Your task to perform on an android device: Go to Google Image 0: 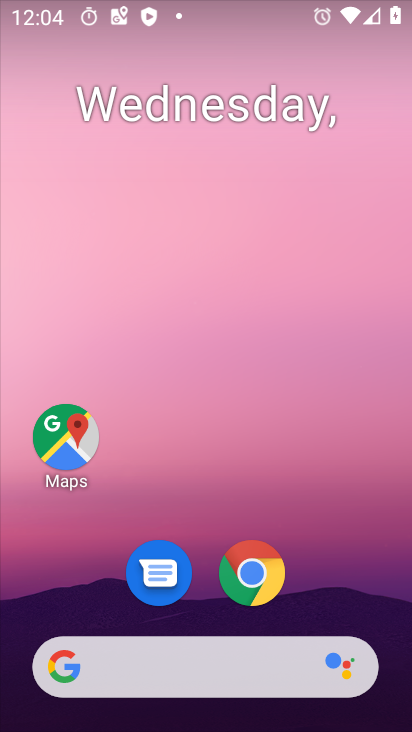
Step 0: drag from (257, 637) to (269, 287)
Your task to perform on an android device: Go to Google Image 1: 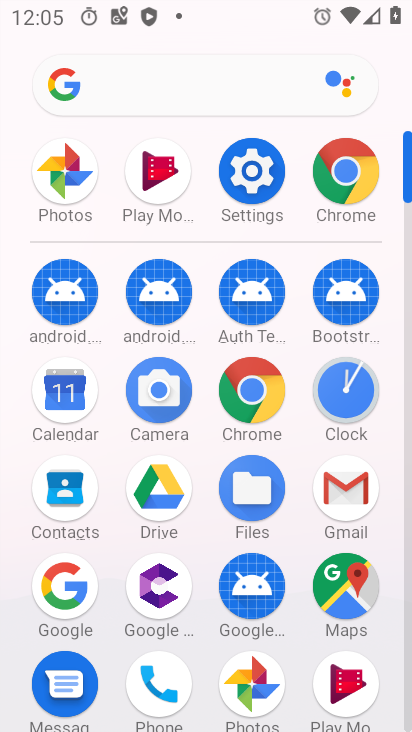
Step 1: click (118, 90)
Your task to perform on an android device: Go to Google Image 2: 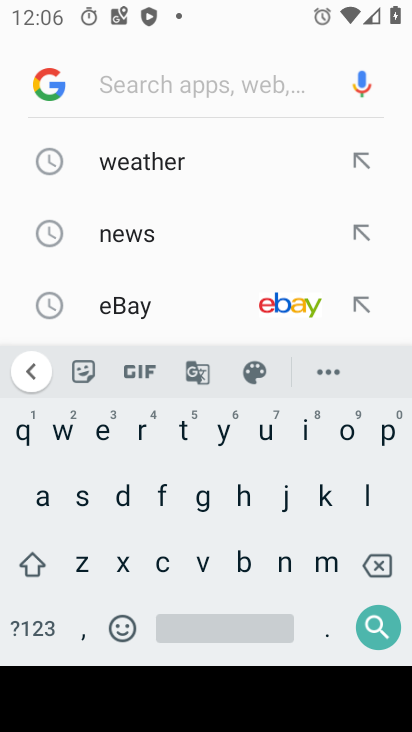
Step 2: click (58, 89)
Your task to perform on an android device: Go to Google Image 3: 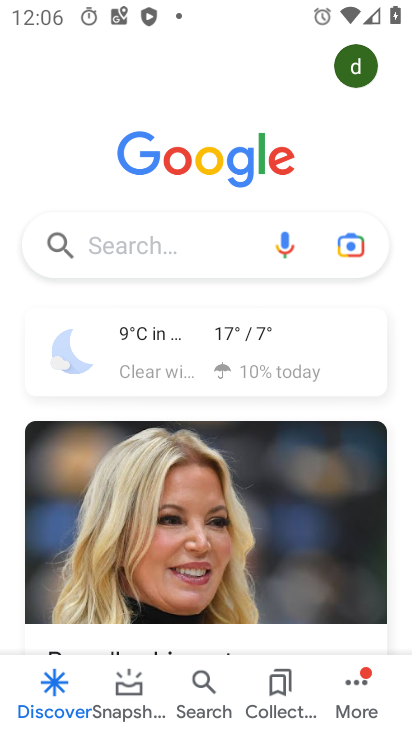
Step 3: task complete